Your task to perform on an android device: empty trash in google photos Image 0: 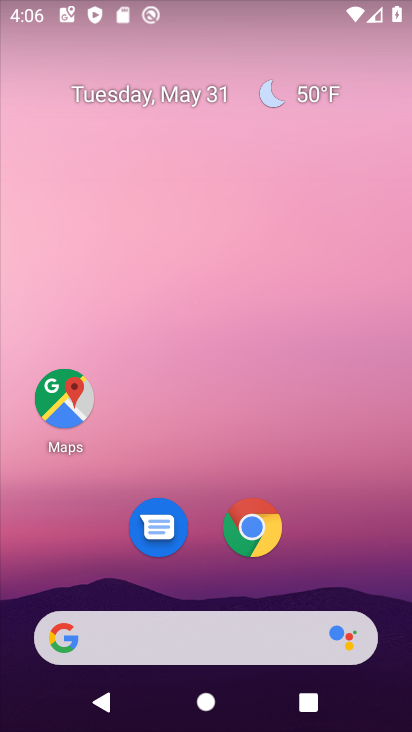
Step 0: press home button
Your task to perform on an android device: empty trash in google photos Image 1: 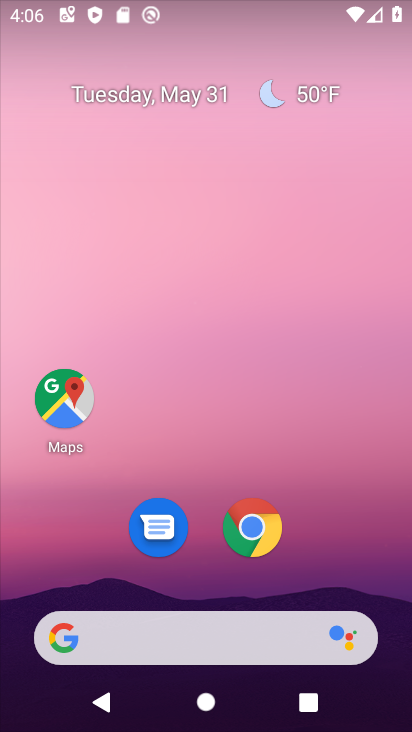
Step 1: drag from (365, 547) to (252, 19)
Your task to perform on an android device: empty trash in google photos Image 2: 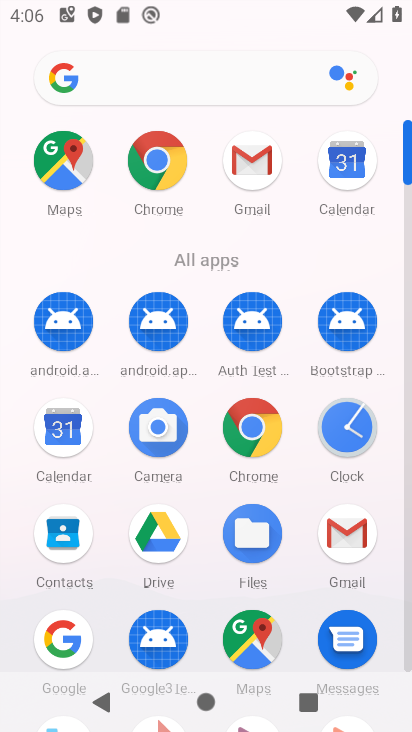
Step 2: click (257, 185)
Your task to perform on an android device: empty trash in google photos Image 3: 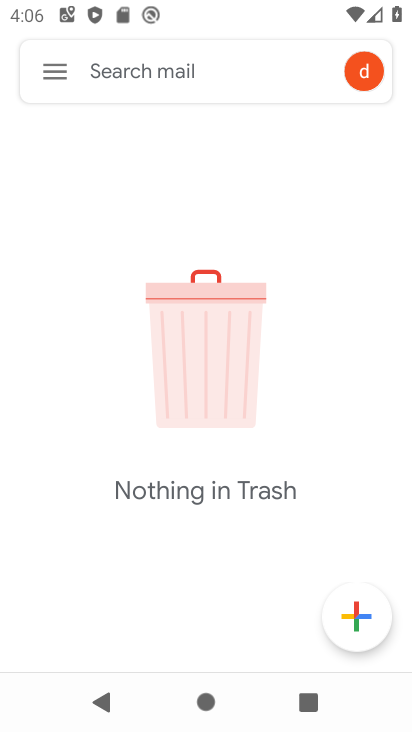
Step 3: task complete